Your task to perform on an android device: Go to CNN.com Image 0: 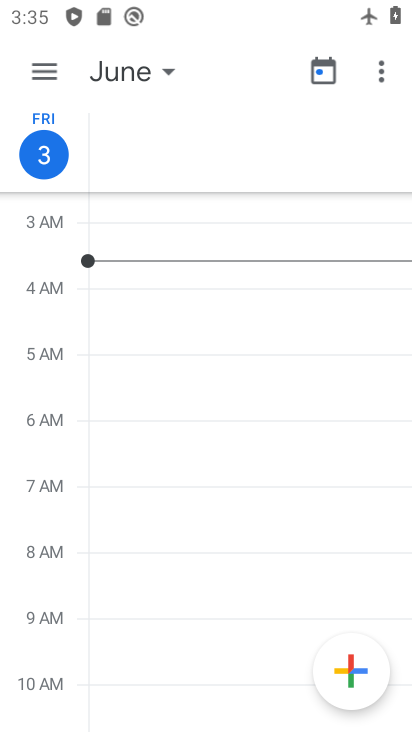
Step 0: press home button
Your task to perform on an android device: Go to CNN.com Image 1: 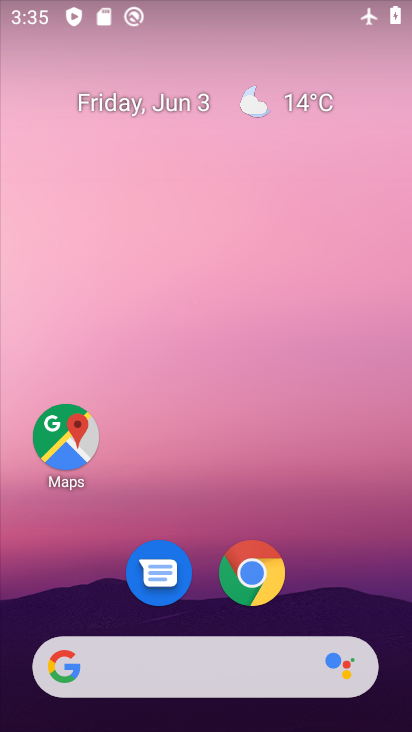
Step 1: drag from (215, 324) to (215, 132)
Your task to perform on an android device: Go to CNN.com Image 2: 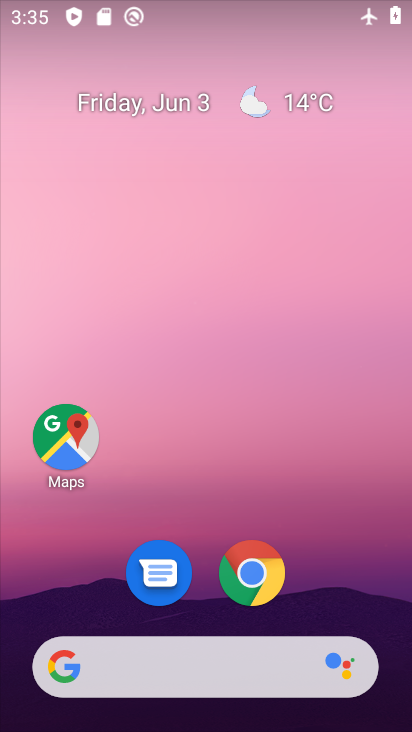
Step 2: click (260, 590)
Your task to perform on an android device: Go to CNN.com Image 3: 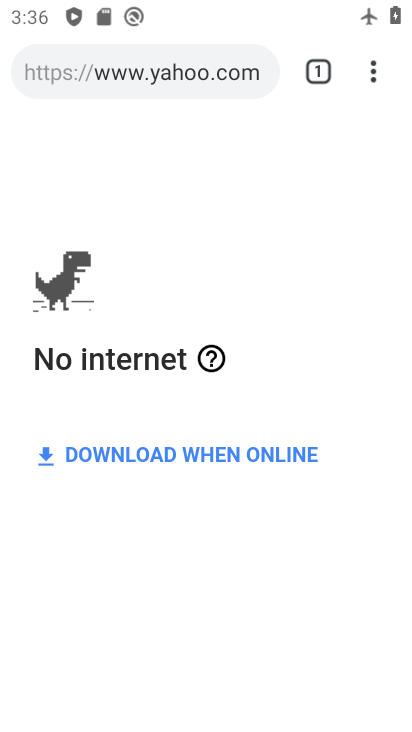
Step 3: click (211, 81)
Your task to perform on an android device: Go to CNN.com Image 4: 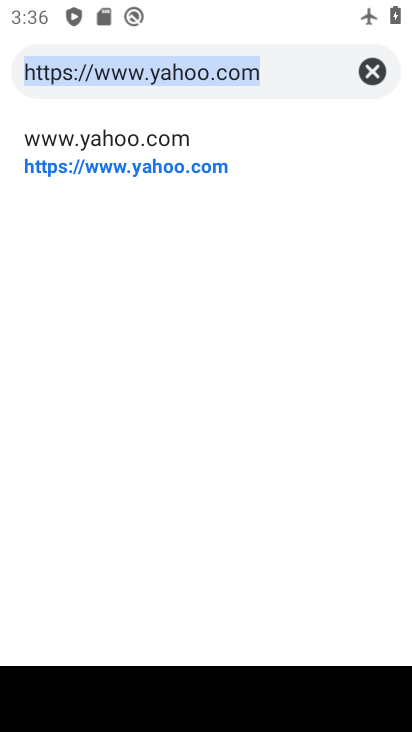
Step 4: type "cnn"
Your task to perform on an android device: Go to CNN.com Image 5: 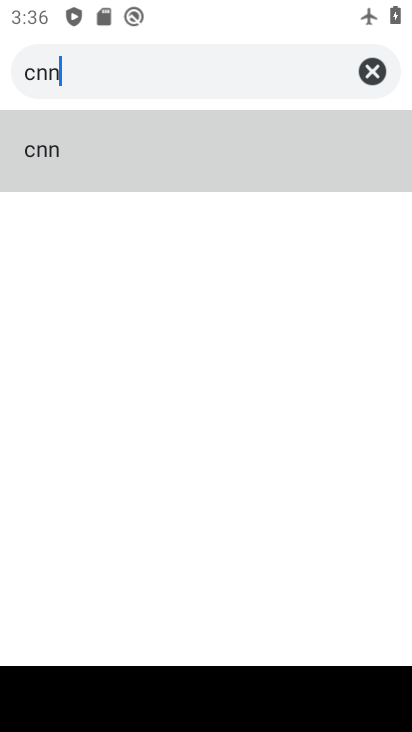
Step 5: click (314, 144)
Your task to perform on an android device: Go to CNN.com Image 6: 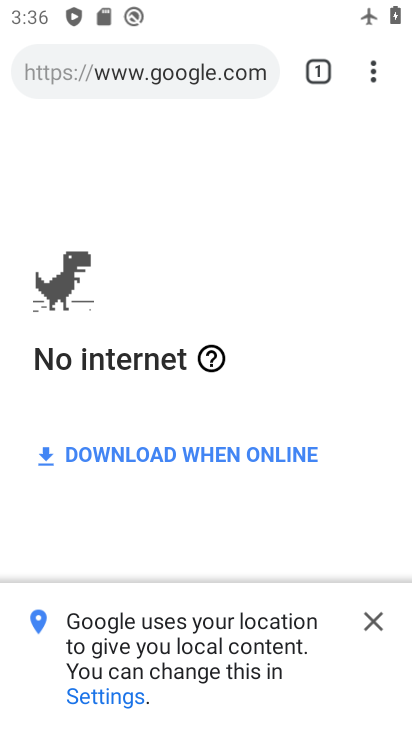
Step 6: task complete